Your task to perform on an android device: toggle airplane mode Image 0: 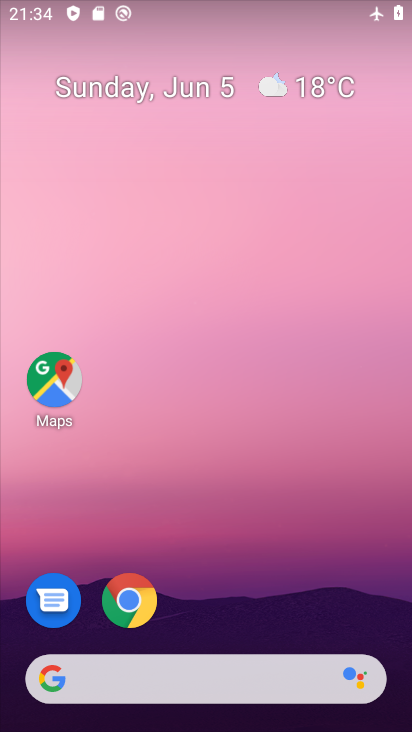
Step 0: drag from (281, 585) to (254, 141)
Your task to perform on an android device: toggle airplane mode Image 1: 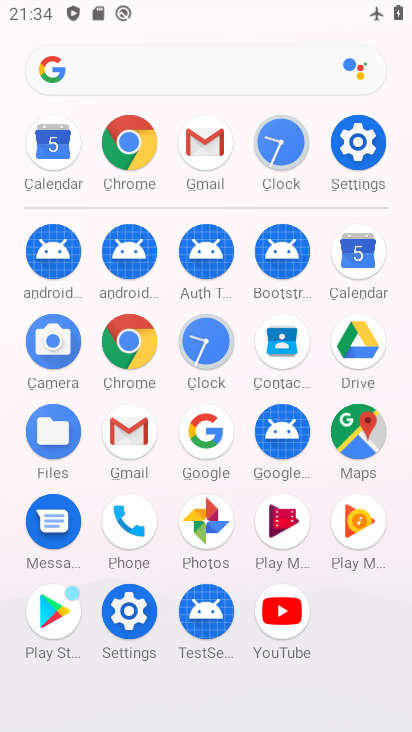
Step 1: click (354, 146)
Your task to perform on an android device: toggle airplane mode Image 2: 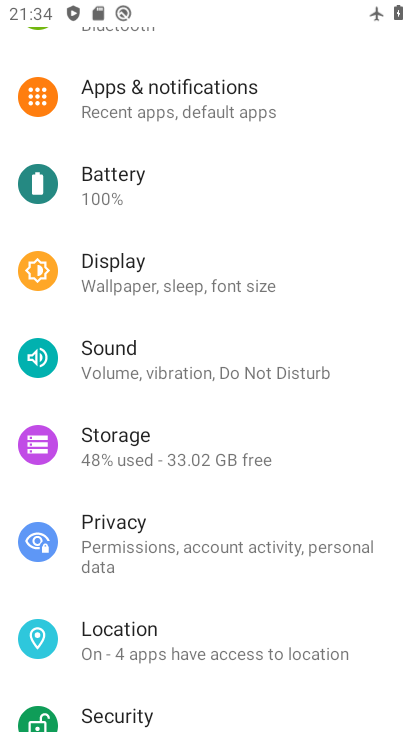
Step 2: drag from (177, 168) to (119, 670)
Your task to perform on an android device: toggle airplane mode Image 3: 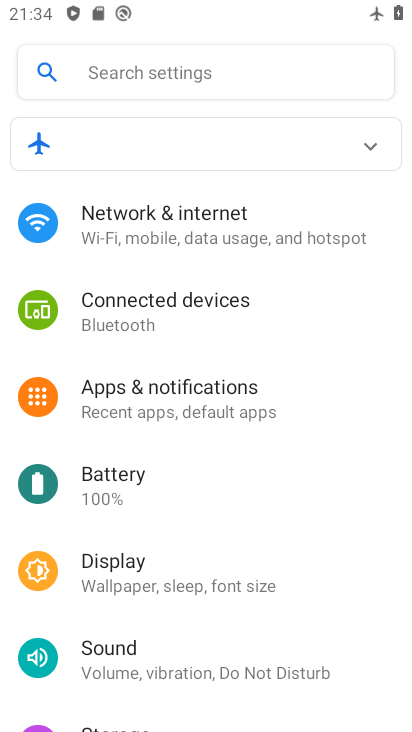
Step 3: click (166, 236)
Your task to perform on an android device: toggle airplane mode Image 4: 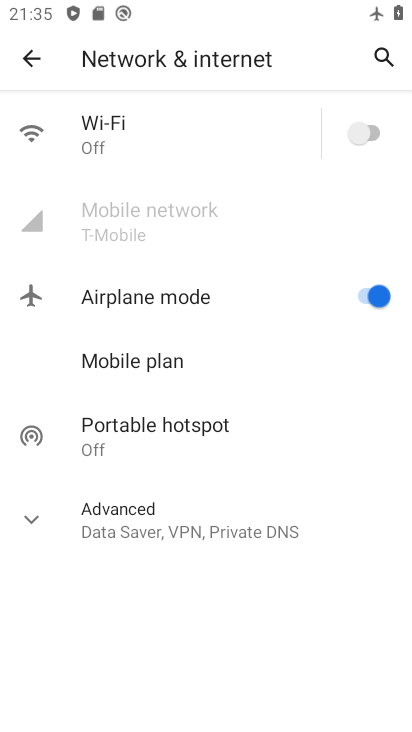
Step 4: click (379, 301)
Your task to perform on an android device: toggle airplane mode Image 5: 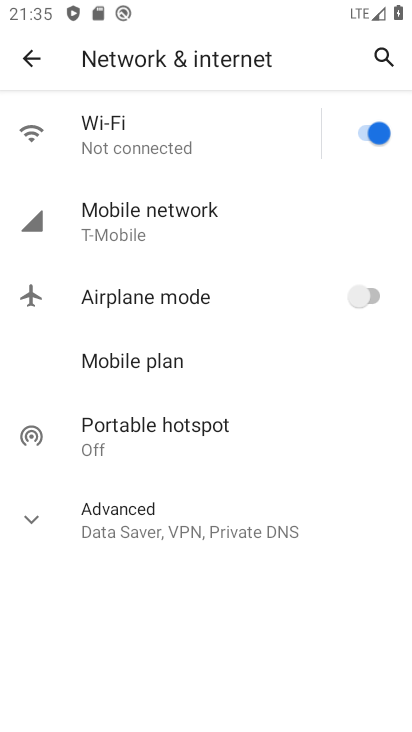
Step 5: task complete